Your task to perform on an android device: change text size in settings app Image 0: 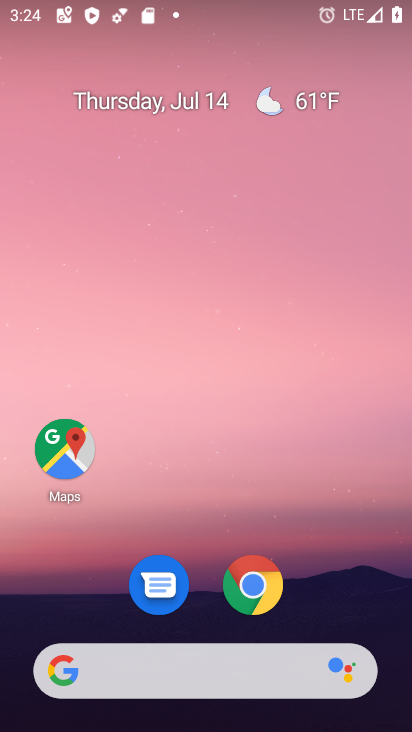
Step 0: drag from (307, 578) to (228, 42)
Your task to perform on an android device: change text size in settings app Image 1: 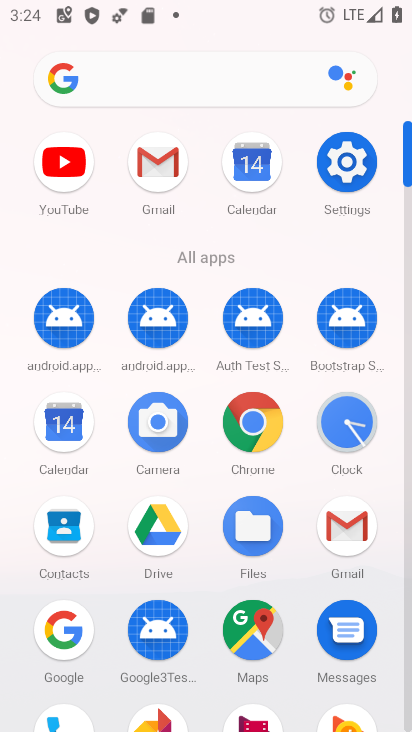
Step 1: click (345, 166)
Your task to perform on an android device: change text size in settings app Image 2: 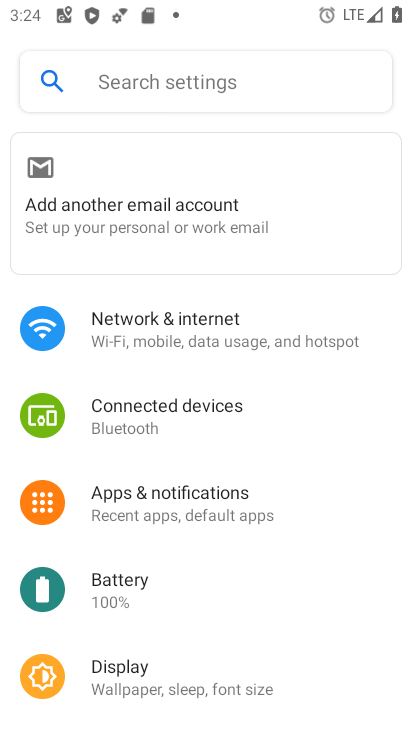
Step 2: click (125, 679)
Your task to perform on an android device: change text size in settings app Image 3: 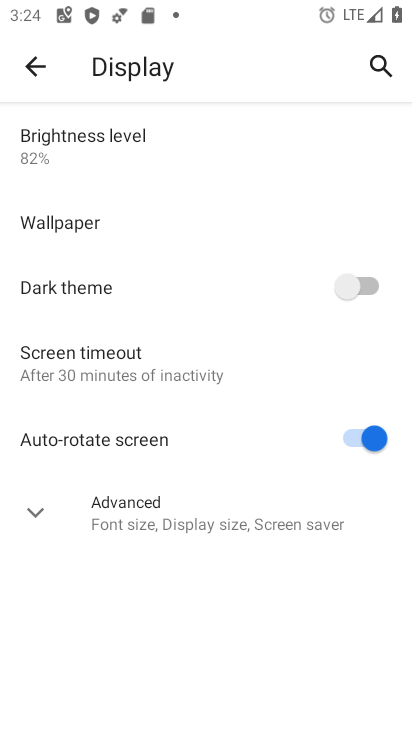
Step 3: click (33, 502)
Your task to perform on an android device: change text size in settings app Image 4: 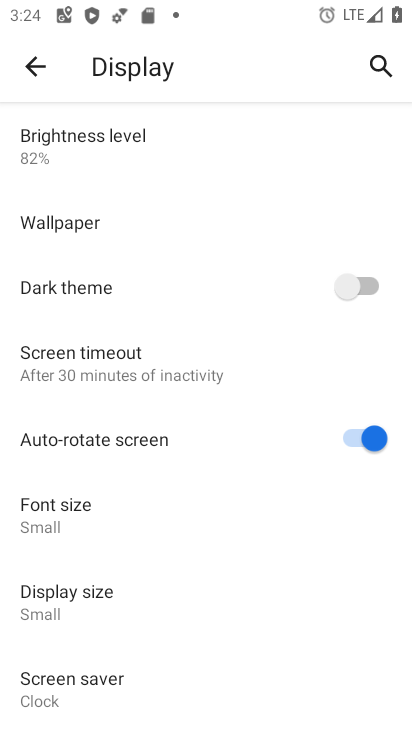
Step 4: click (74, 514)
Your task to perform on an android device: change text size in settings app Image 5: 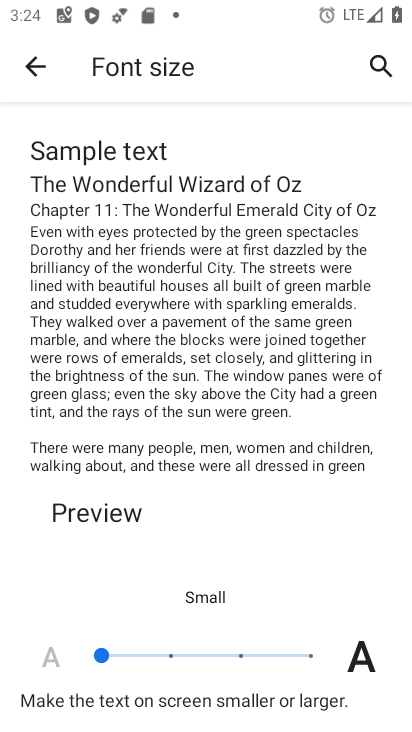
Step 5: click (171, 652)
Your task to perform on an android device: change text size in settings app Image 6: 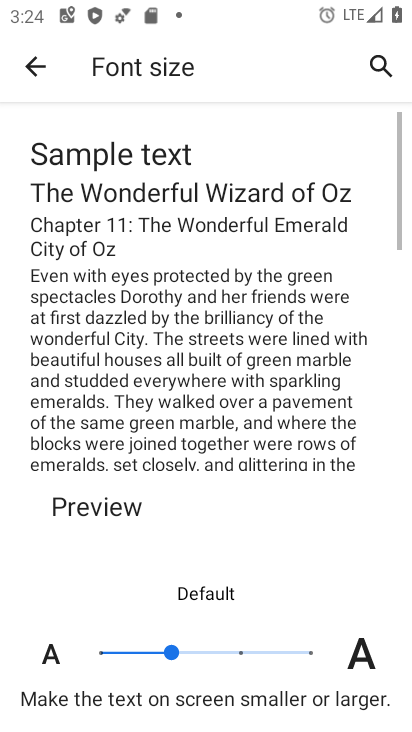
Step 6: click (36, 58)
Your task to perform on an android device: change text size in settings app Image 7: 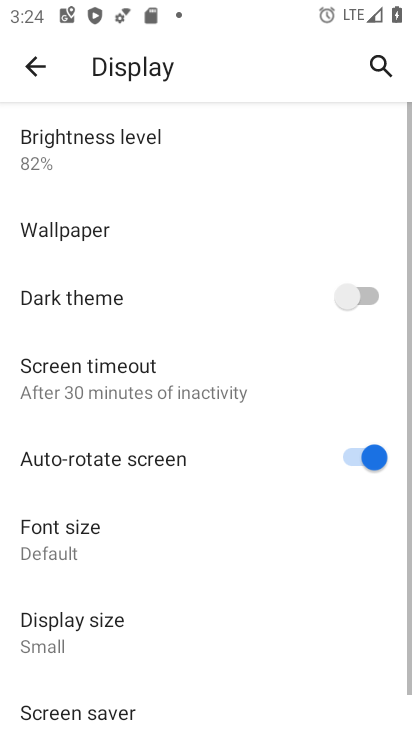
Step 7: task complete